Your task to perform on an android device: Is it going to rain tomorrow? Image 0: 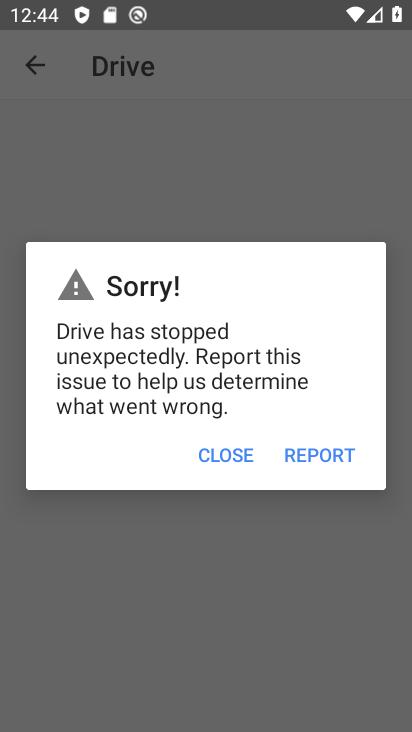
Step 0: press home button
Your task to perform on an android device: Is it going to rain tomorrow? Image 1: 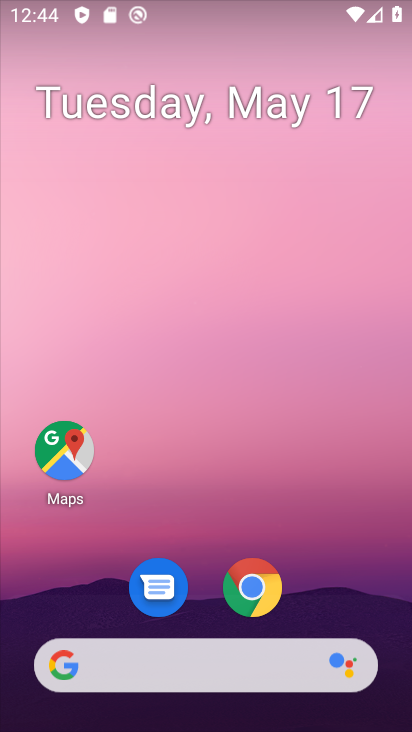
Step 1: drag from (355, 597) to (378, 116)
Your task to perform on an android device: Is it going to rain tomorrow? Image 2: 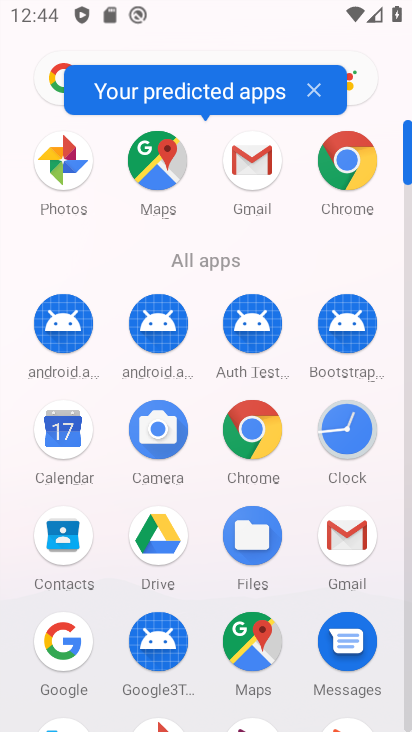
Step 2: click (197, 57)
Your task to perform on an android device: Is it going to rain tomorrow? Image 3: 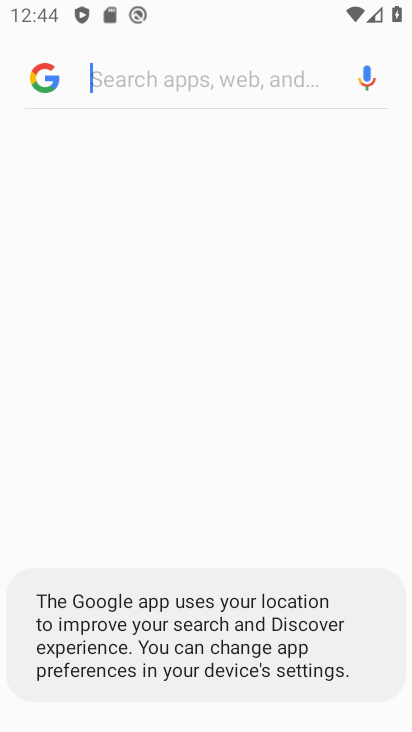
Step 3: click (197, 57)
Your task to perform on an android device: Is it going to rain tomorrow? Image 4: 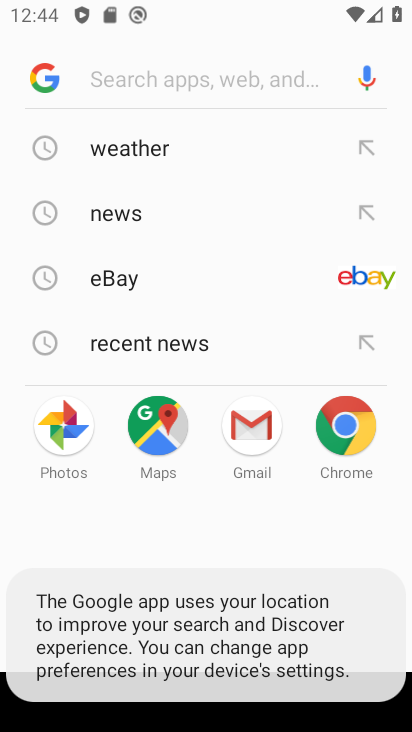
Step 4: click (197, 67)
Your task to perform on an android device: Is it going to rain tomorrow? Image 5: 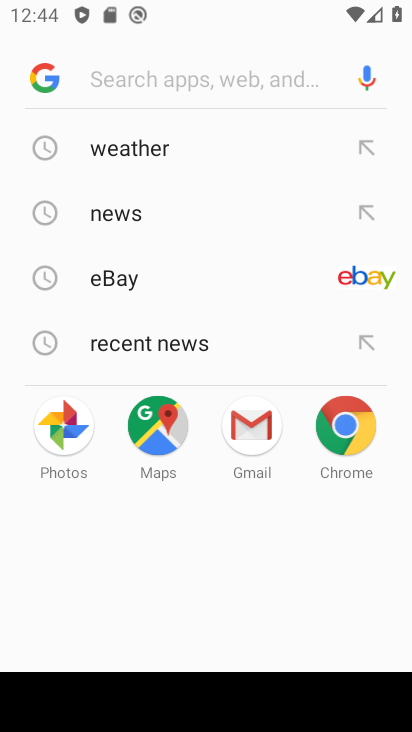
Step 5: click (147, 150)
Your task to perform on an android device: Is it going to rain tomorrow? Image 6: 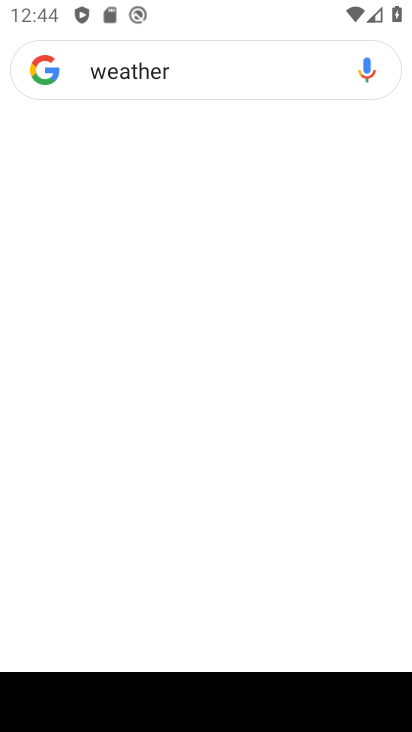
Step 6: task complete